Your task to perform on an android device: change the clock display to show seconds Image 0: 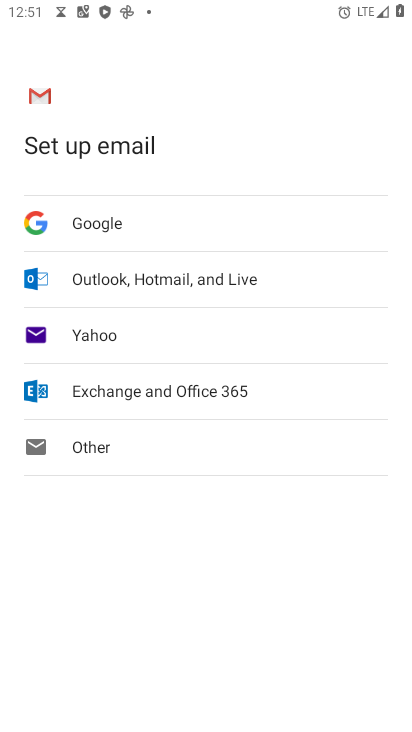
Step 0: press home button
Your task to perform on an android device: change the clock display to show seconds Image 1: 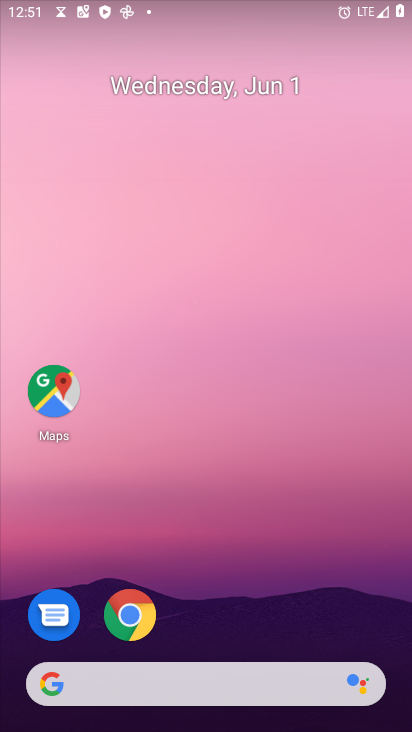
Step 1: drag from (285, 489) to (294, 13)
Your task to perform on an android device: change the clock display to show seconds Image 2: 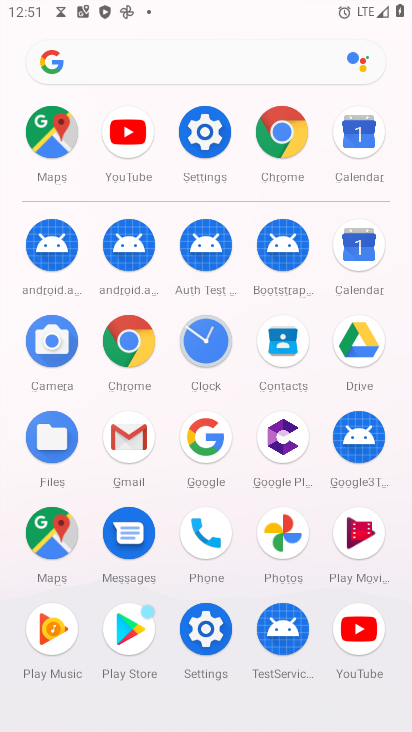
Step 2: click (199, 340)
Your task to perform on an android device: change the clock display to show seconds Image 3: 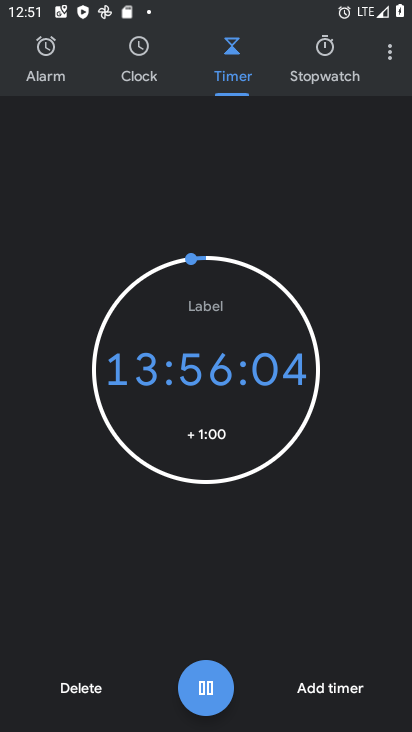
Step 3: click (397, 66)
Your task to perform on an android device: change the clock display to show seconds Image 4: 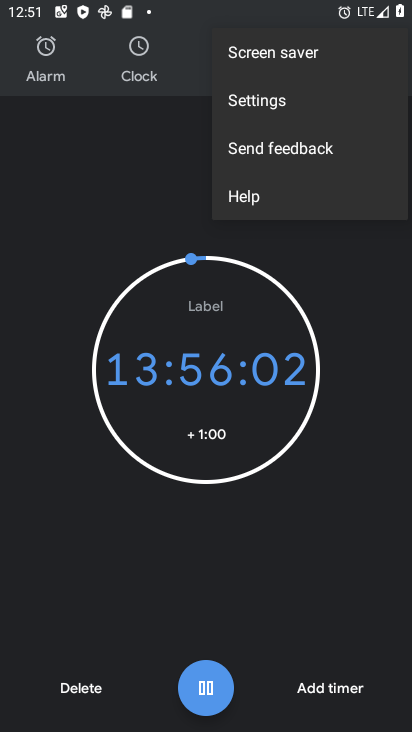
Step 4: click (273, 111)
Your task to perform on an android device: change the clock display to show seconds Image 5: 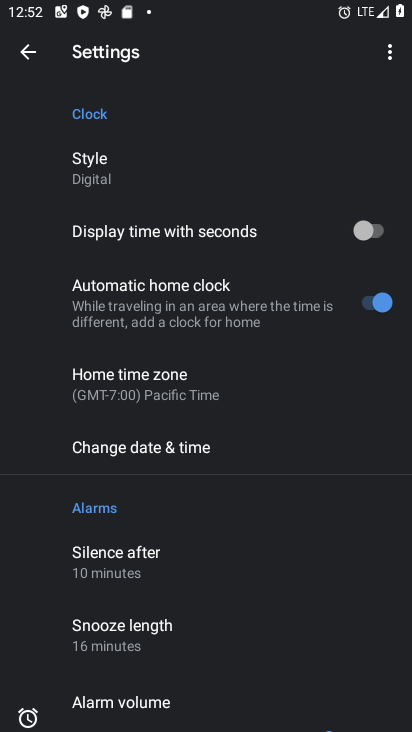
Step 5: click (355, 228)
Your task to perform on an android device: change the clock display to show seconds Image 6: 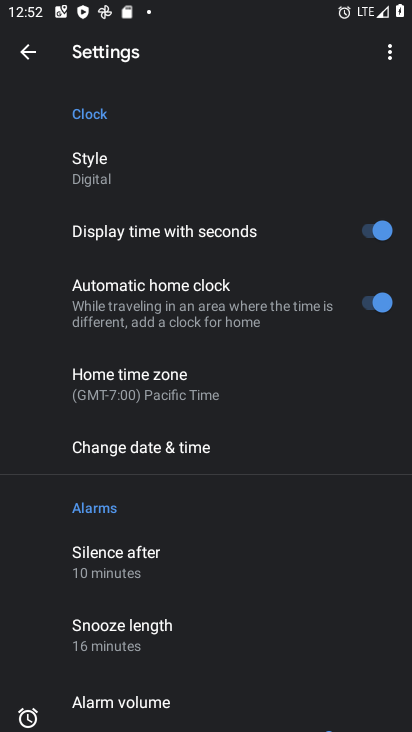
Step 6: task complete